Your task to perform on an android device: Is it going to rain today? Image 0: 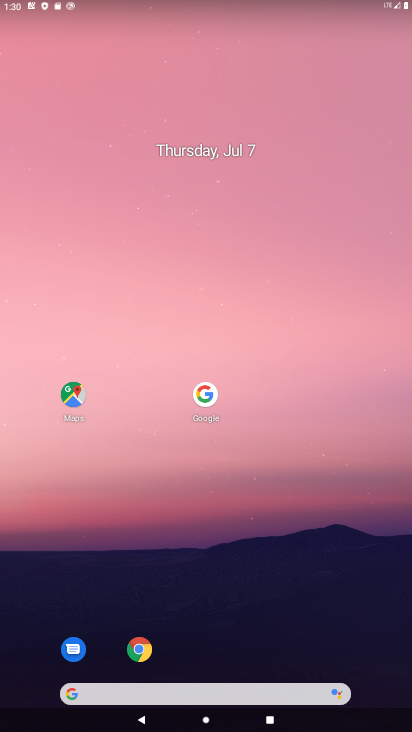
Step 0: click (197, 696)
Your task to perform on an android device: Is it going to rain today? Image 1: 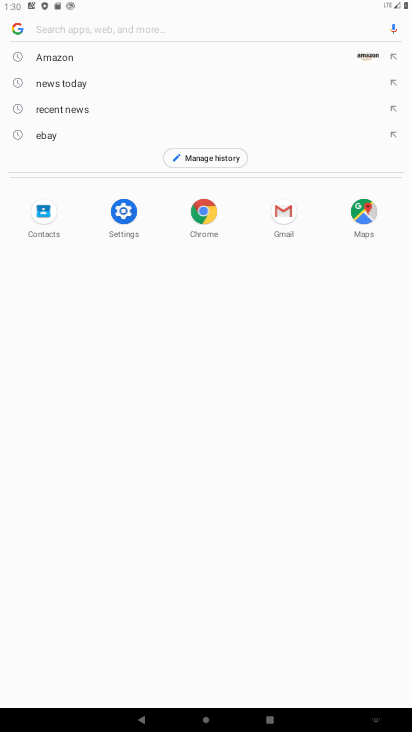
Step 1: type "Is it going to rain today?"
Your task to perform on an android device: Is it going to rain today? Image 2: 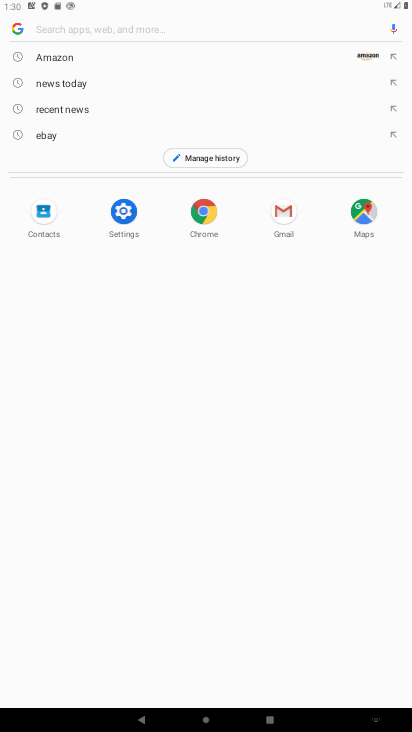
Step 2: click (102, 23)
Your task to perform on an android device: Is it going to rain today? Image 3: 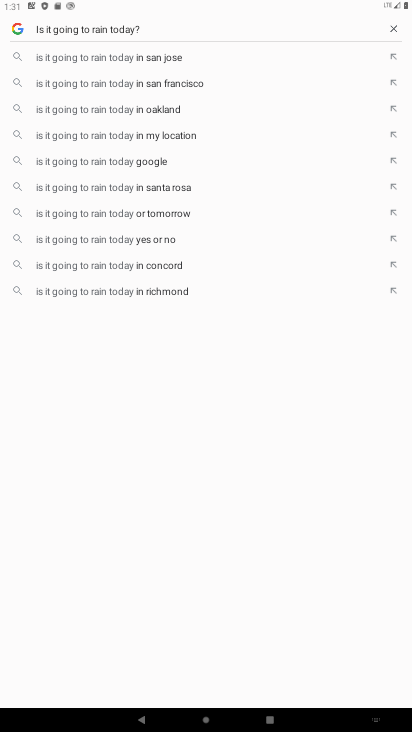
Step 3: press enter
Your task to perform on an android device: Is it going to rain today? Image 4: 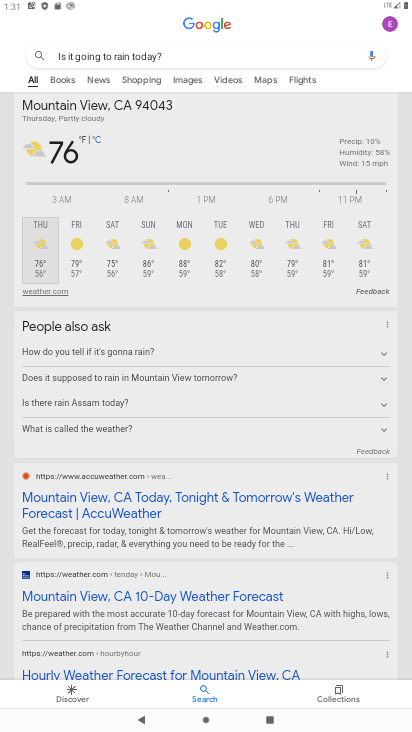
Step 4: task complete